Your task to perform on an android device: Toggle the flashlight Image 0: 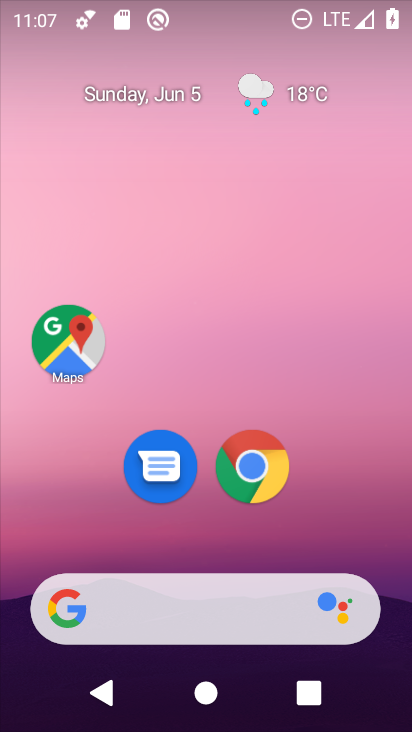
Step 0: click (237, 49)
Your task to perform on an android device: Toggle the flashlight Image 1: 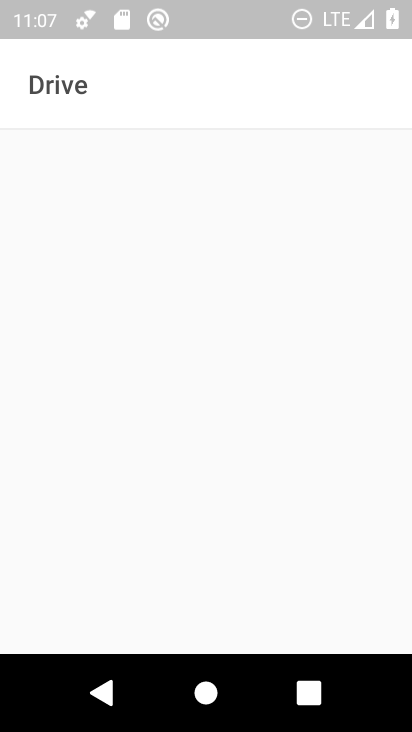
Step 1: press back button
Your task to perform on an android device: Toggle the flashlight Image 2: 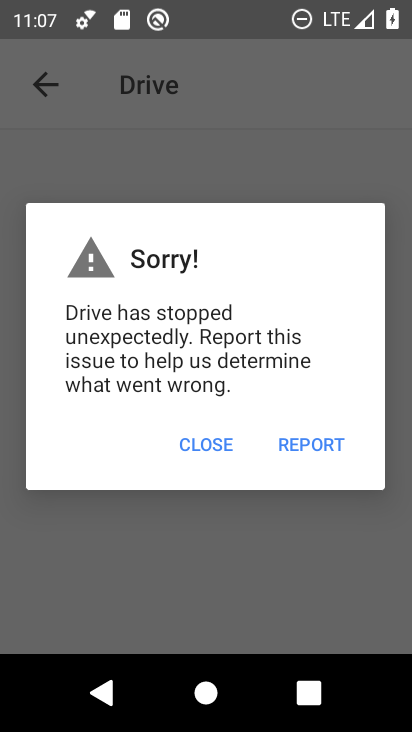
Step 2: press back button
Your task to perform on an android device: Toggle the flashlight Image 3: 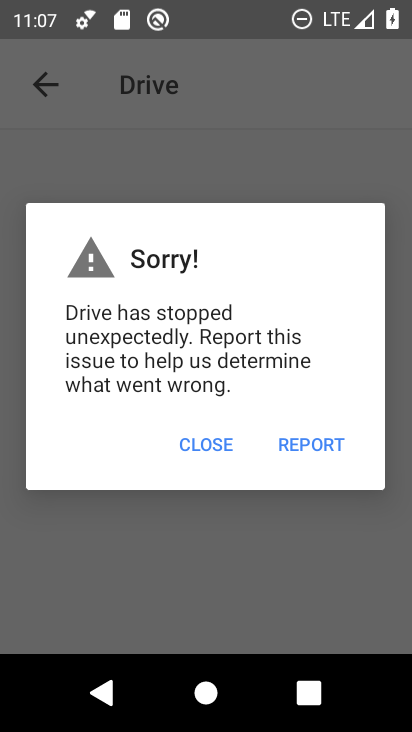
Step 3: press home button
Your task to perform on an android device: Toggle the flashlight Image 4: 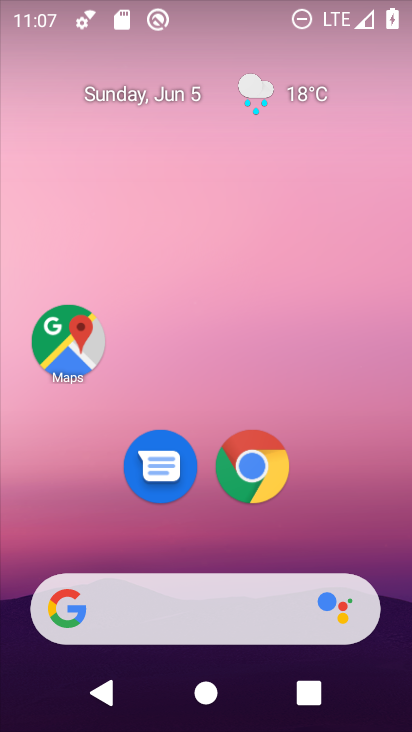
Step 4: drag from (367, 552) to (232, 39)
Your task to perform on an android device: Toggle the flashlight Image 5: 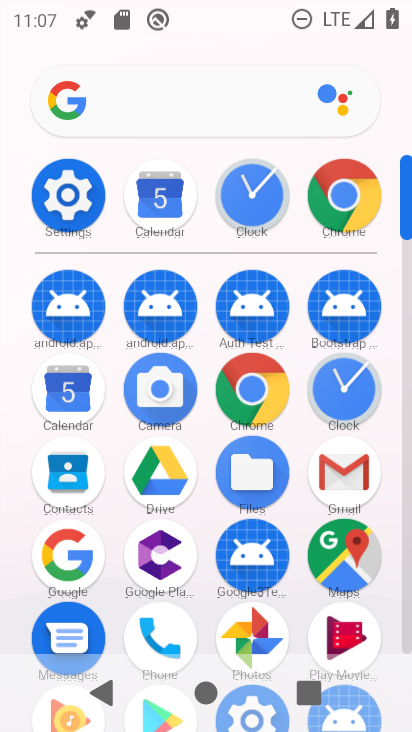
Step 5: click (65, 190)
Your task to perform on an android device: Toggle the flashlight Image 6: 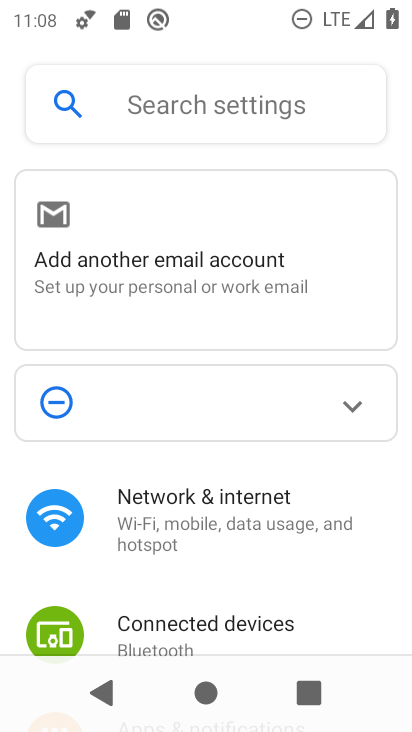
Step 6: drag from (298, 560) to (317, 231)
Your task to perform on an android device: Toggle the flashlight Image 7: 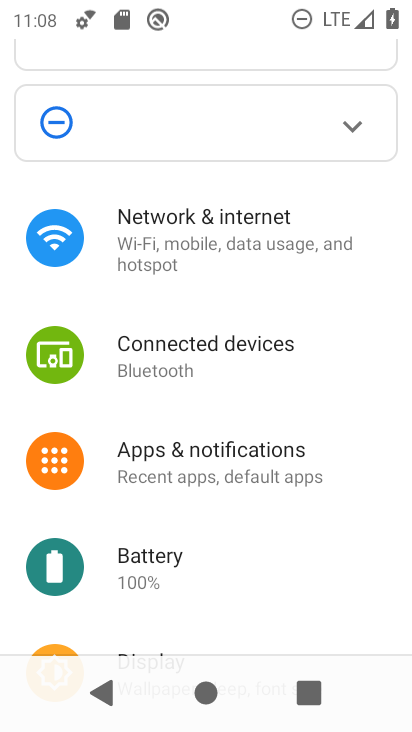
Step 7: click (303, 234)
Your task to perform on an android device: Toggle the flashlight Image 8: 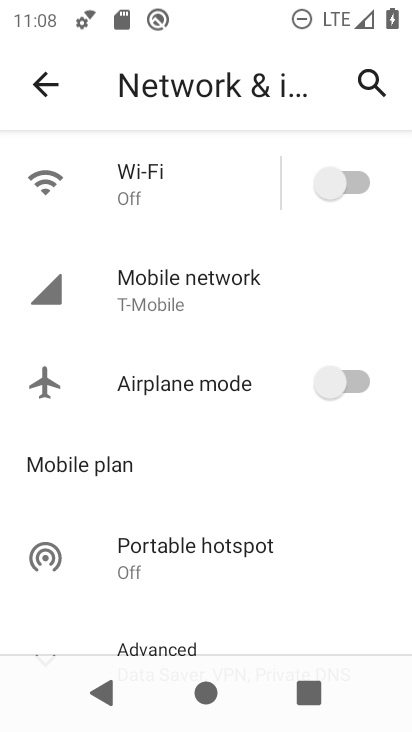
Step 8: drag from (214, 360) to (192, 185)
Your task to perform on an android device: Toggle the flashlight Image 9: 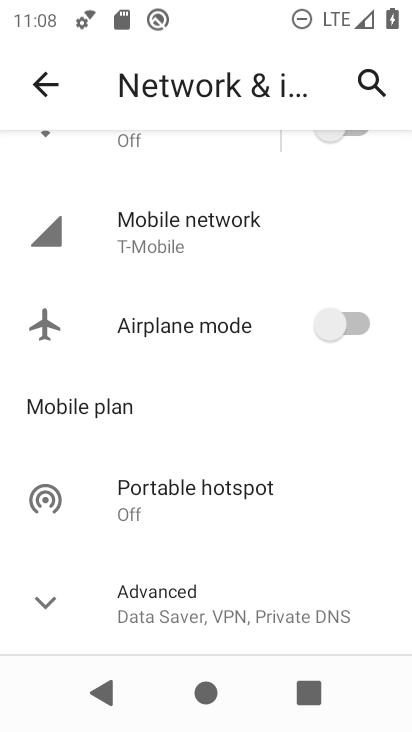
Step 9: click (41, 591)
Your task to perform on an android device: Toggle the flashlight Image 10: 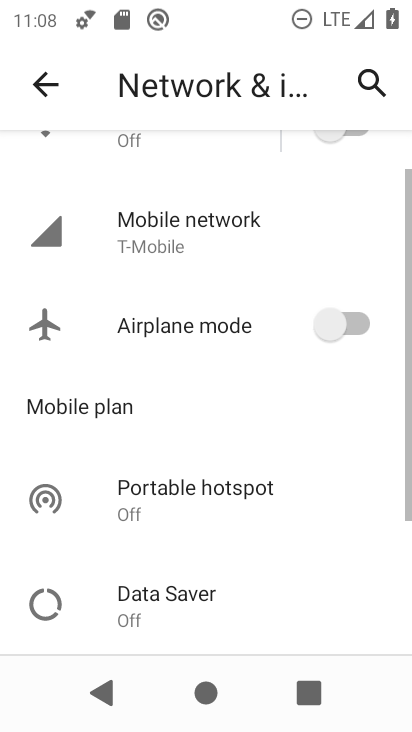
Step 10: task complete